Your task to perform on an android device: uninstall "Clock" Image 0: 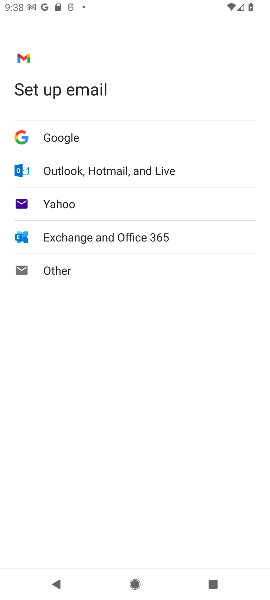
Step 0: press home button
Your task to perform on an android device: uninstall "Clock" Image 1: 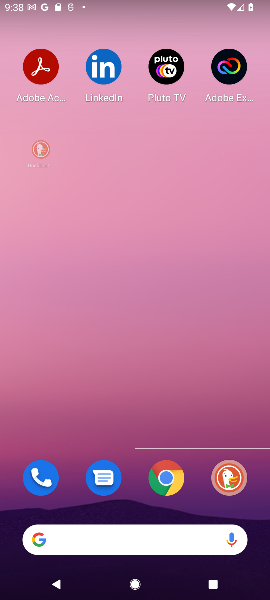
Step 1: task complete